Your task to perform on an android device: Open Google Maps Image 0: 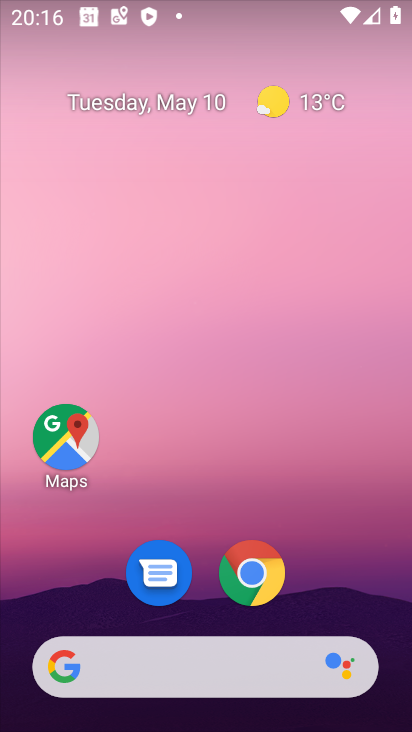
Step 0: click (61, 444)
Your task to perform on an android device: Open Google Maps Image 1: 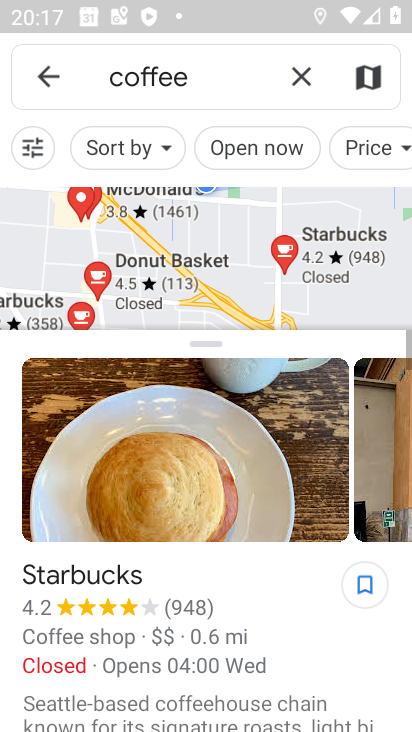
Step 1: click (298, 77)
Your task to perform on an android device: Open Google Maps Image 2: 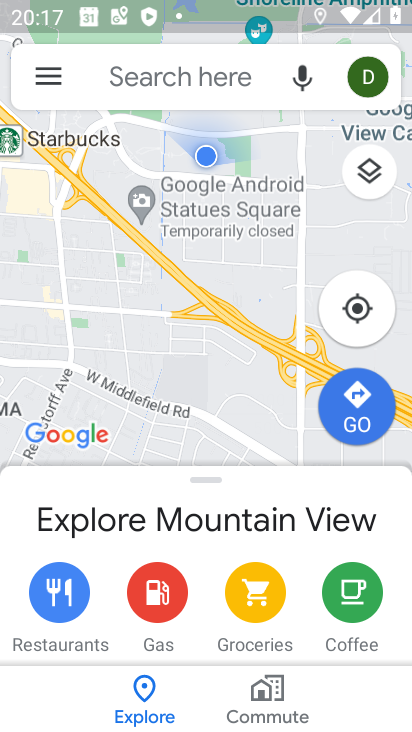
Step 2: task complete